Your task to perform on an android device: check data usage Image 0: 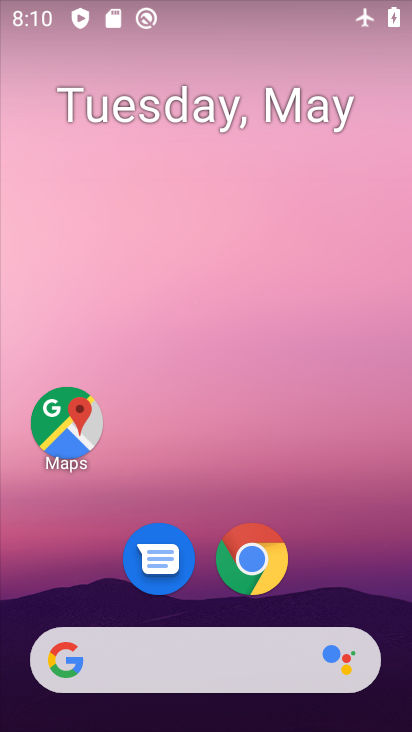
Step 0: drag from (198, 590) to (198, 181)
Your task to perform on an android device: check data usage Image 1: 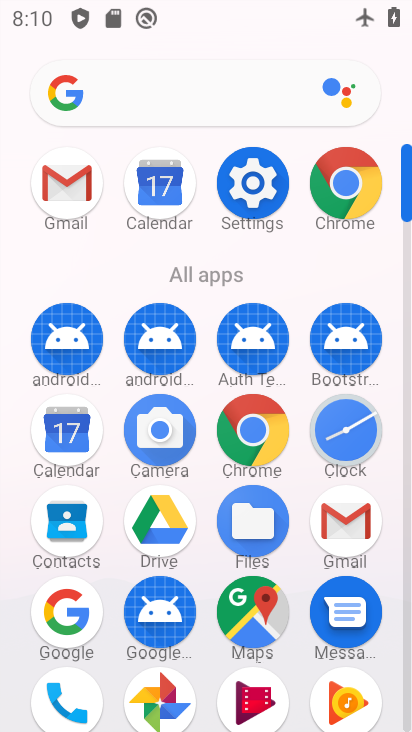
Step 1: click (249, 192)
Your task to perform on an android device: check data usage Image 2: 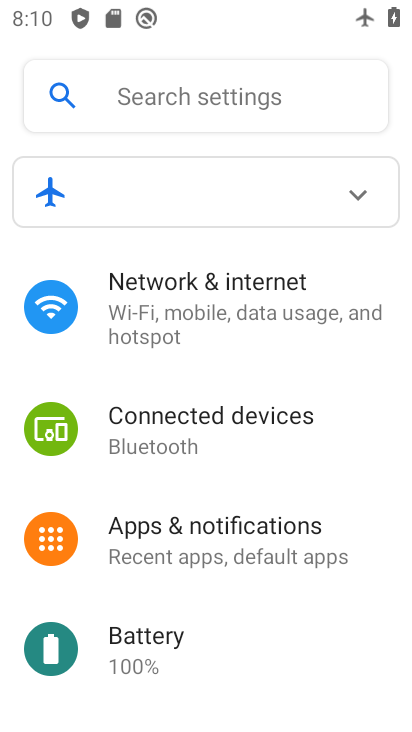
Step 2: click (211, 293)
Your task to perform on an android device: check data usage Image 3: 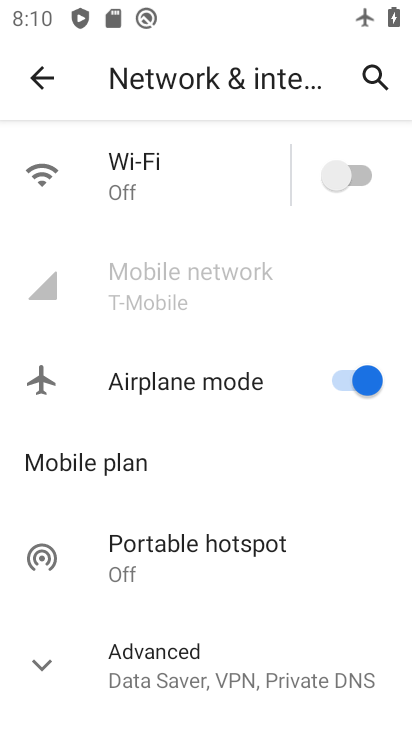
Step 3: click (211, 293)
Your task to perform on an android device: check data usage Image 4: 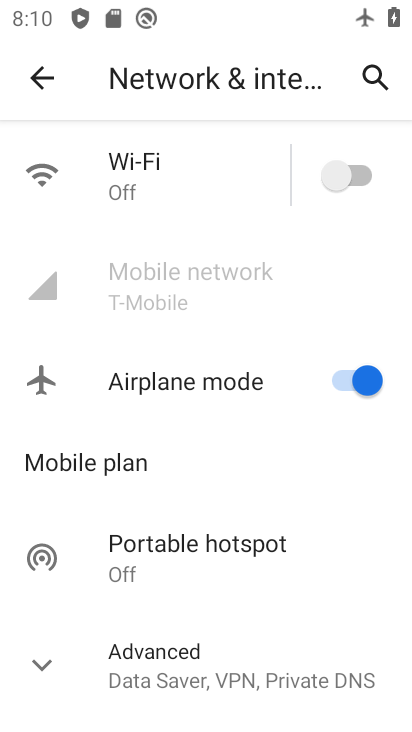
Step 4: click (194, 300)
Your task to perform on an android device: check data usage Image 5: 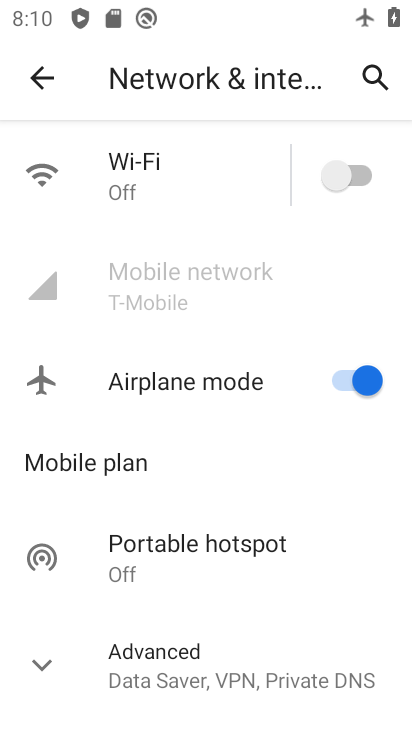
Step 5: task complete